Your task to perform on an android device: Go to Google maps Image 0: 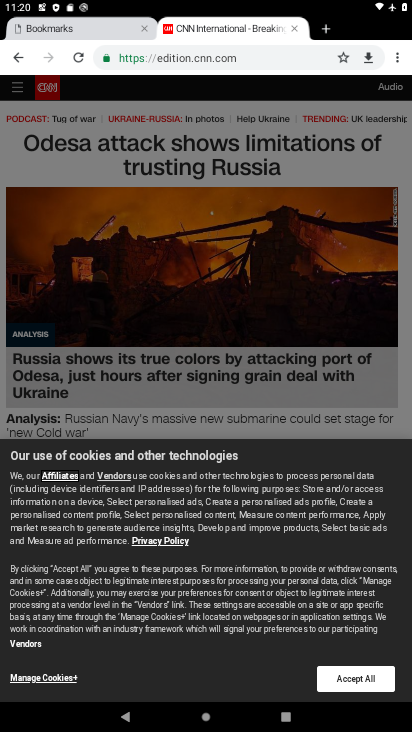
Step 0: press home button
Your task to perform on an android device: Go to Google maps Image 1: 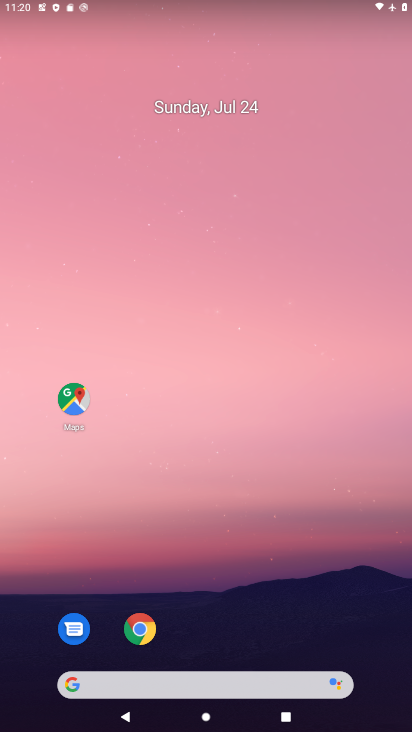
Step 1: click (77, 403)
Your task to perform on an android device: Go to Google maps Image 2: 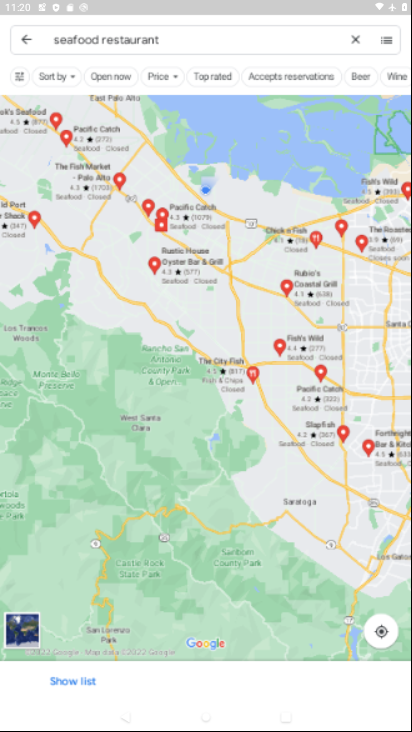
Step 2: task complete